Your task to perform on an android device: Go to internet settings Image 0: 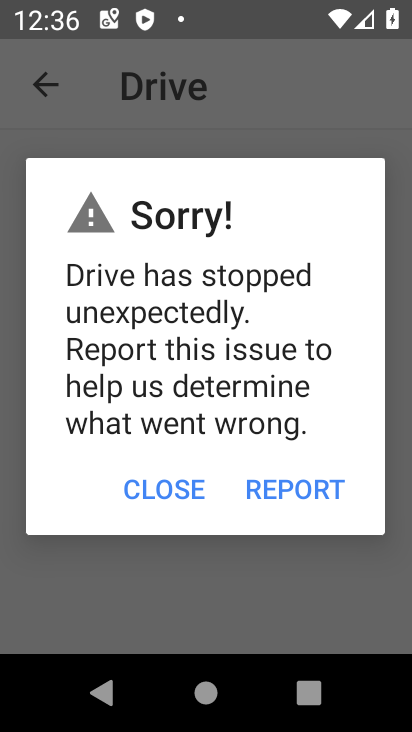
Step 0: press home button
Your task to perform on an android device: Go to internet settings Image 1: 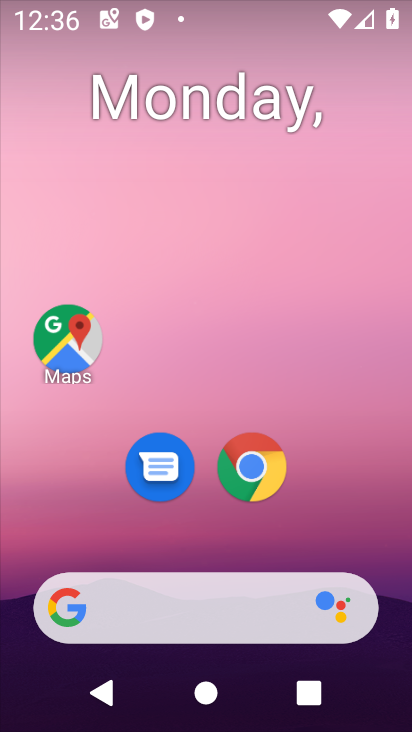
Step 1: drag from (380, 582) to (347, 151)
Your task to perform on an android device: Go to internet settings Image 2: 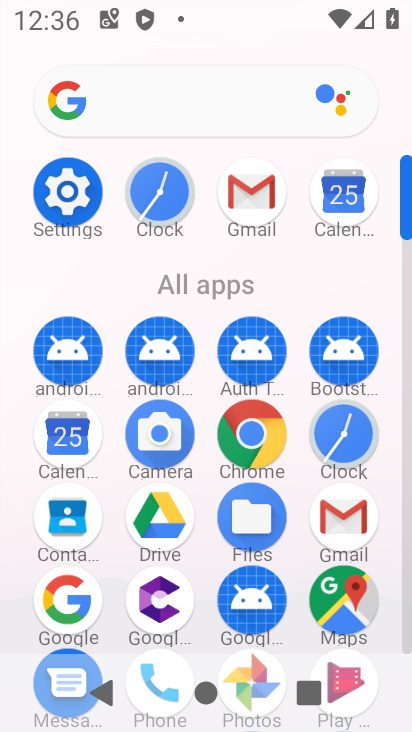
Step 2: click (404, 639)
Your task to perform on an android device: Go to internet settings Image 3: 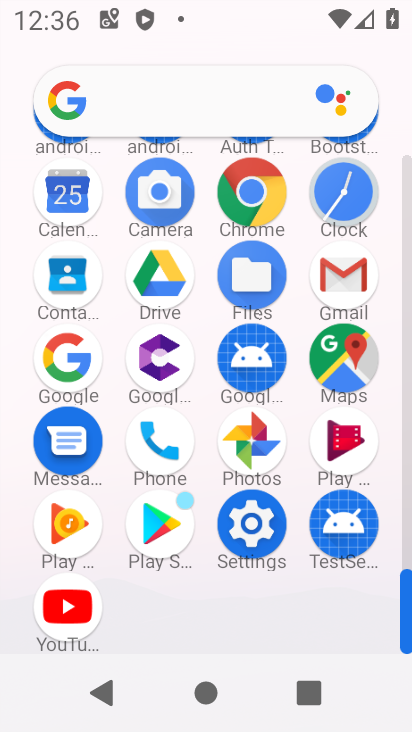
Step 3: click (254, 525)
Your task to perform on an android device: Go to internet settings Image 4: 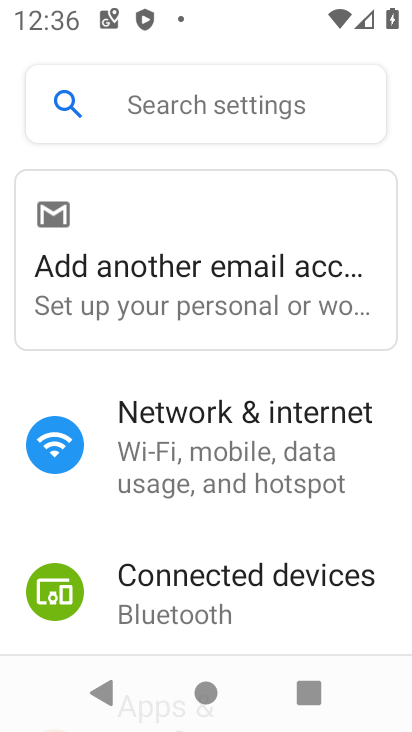
Step 4: click (192, 412)
Your task to perform on an android device: Go to internet settings Image 5: 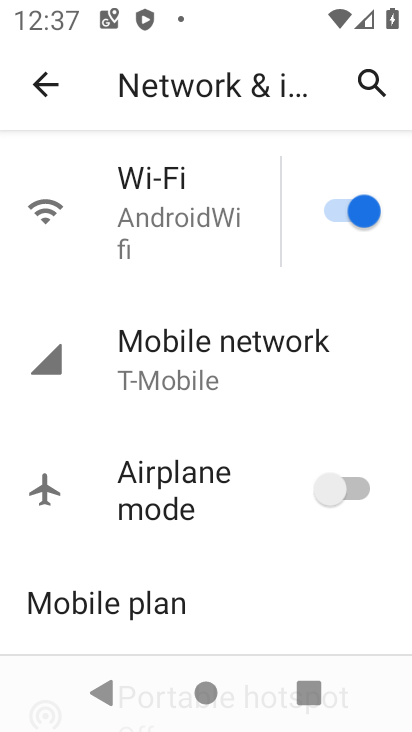
Step 5: click (162, 351)
Your task to perform on an android device: Go to internet settings Image 6: 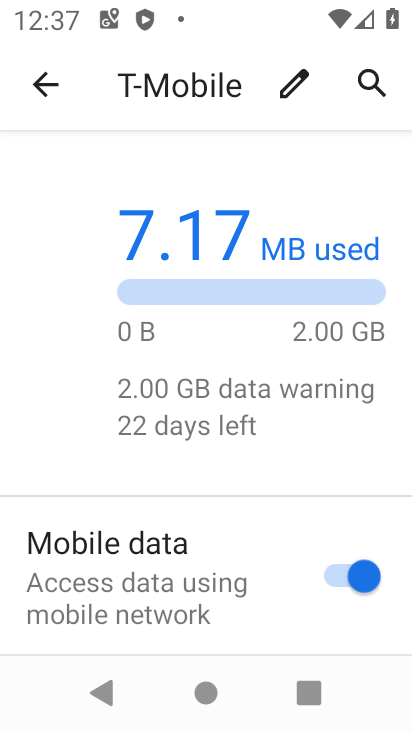
Step 6: task complete